Your task to perform on an android device: change notification settings in the gmail app Image 0: 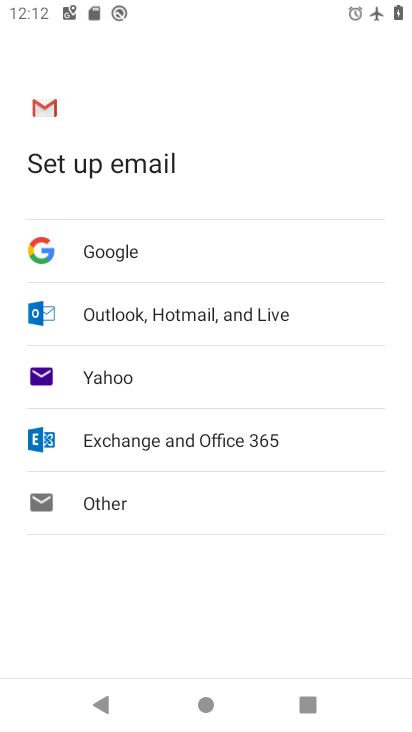
Step 0: press home button
Your task to perform on an android device: change notification settings in the gmail app Image 1: 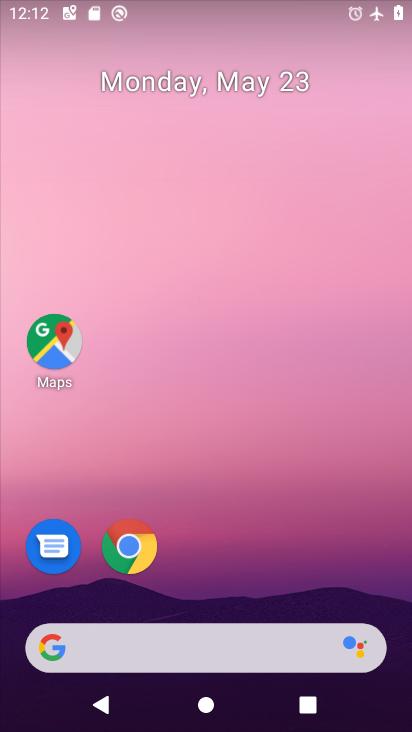
Step 1: drag from (265, 601) to (333, 2)
Your task to perform on an android device: change notification settings in the gmail app Image 2: 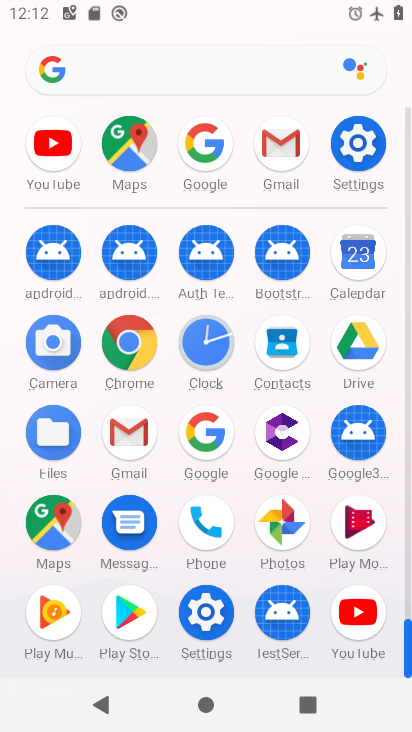
Step 2: click (127, 426)
Your task to perform on an android device: change notification settings in the gmail app Image 3: 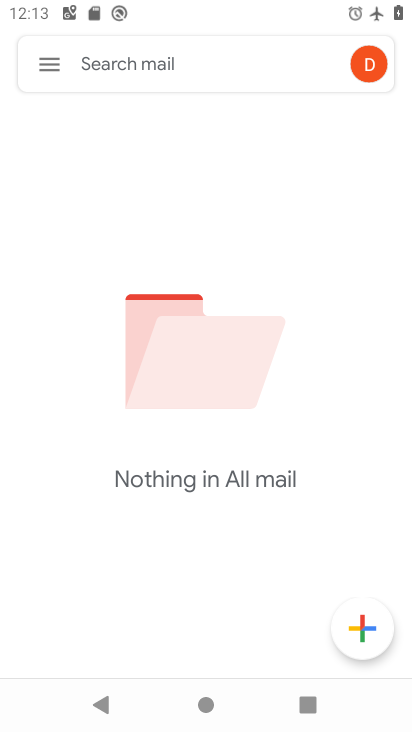
Step 3: click (60, 70)
Your task to perform on an android device: change notification settings in the gmail app Image 4: 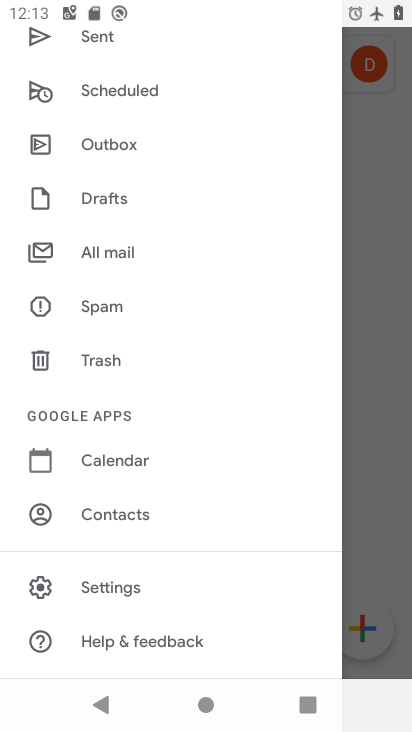
Step 4: click (137, 595)
Your task to perform on an android device: change notification settings in the gmail app Image 5: 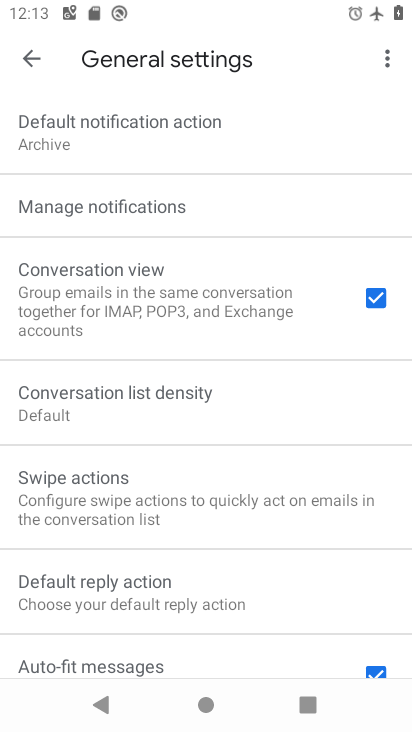
Step 5: click (218, 208)
Your task to perform on an android device: change notification settings in the gmail app Image 6: 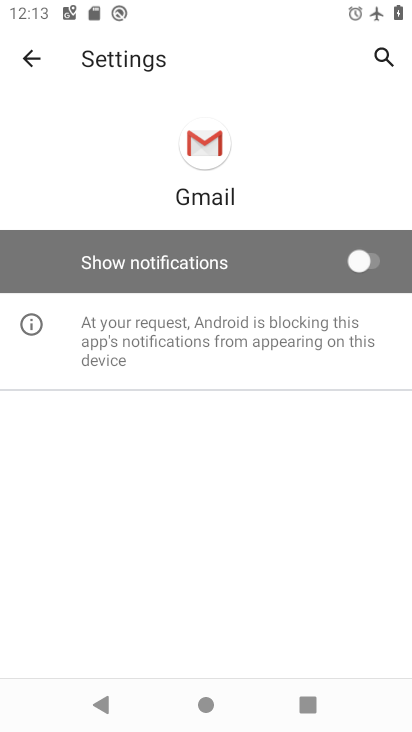
Step 6: click (371, 260)
Your task to perform on an android device: change notification settings in the gmail app Image 7: 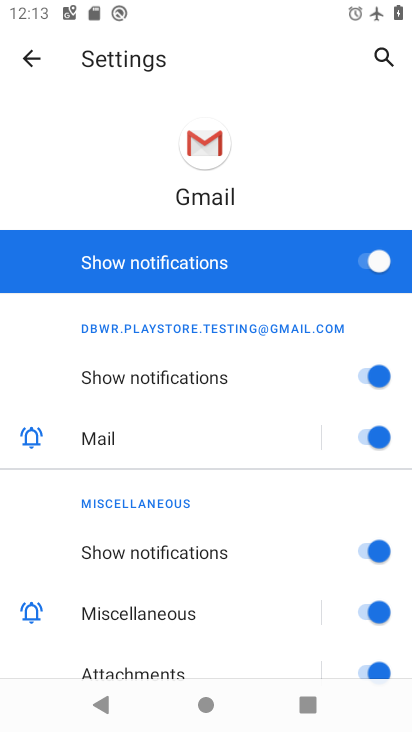
Step 7: task complete